Your task to perform on an android device: create a new album in the google photos Image 0: 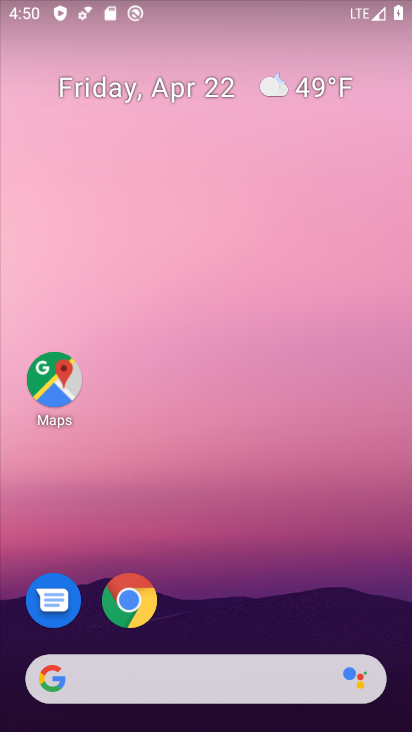
Step 0: drag from (225, 514) to (217, 13)
Your task to perform on an android device: create a new album in the google photos Image 1: 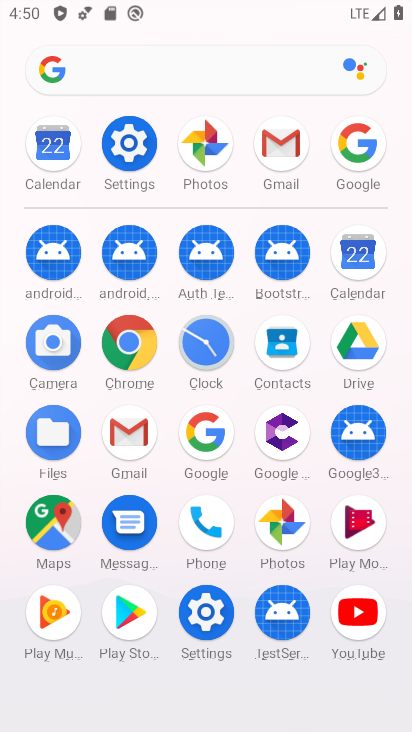
Step 1: click (204, 144)
Your task to perform on an android device: create a new album in the google photos Image 2: 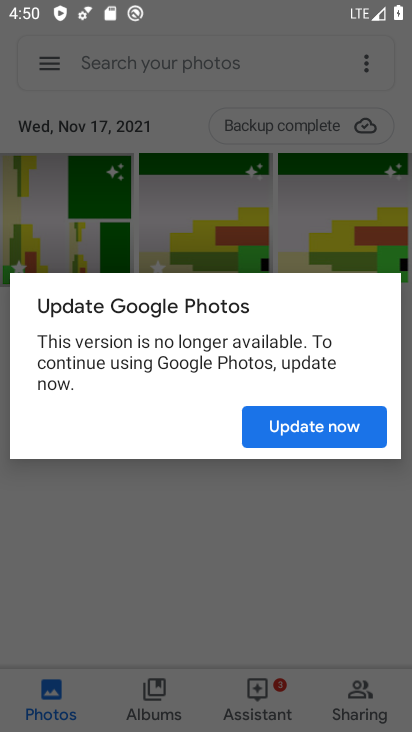
Step 2: click (301, 426)
Your task to perform on an android device: create a new album in the google photos Image 3: 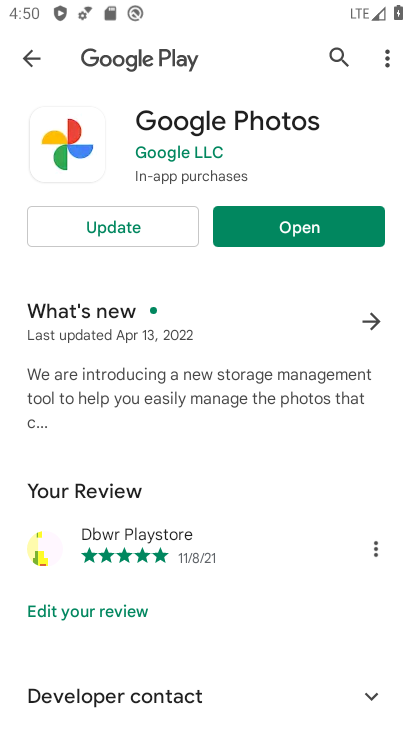
Step 3: click (155, 232)
Your task to perform on an android device: create a new album in the google photos Image 4: 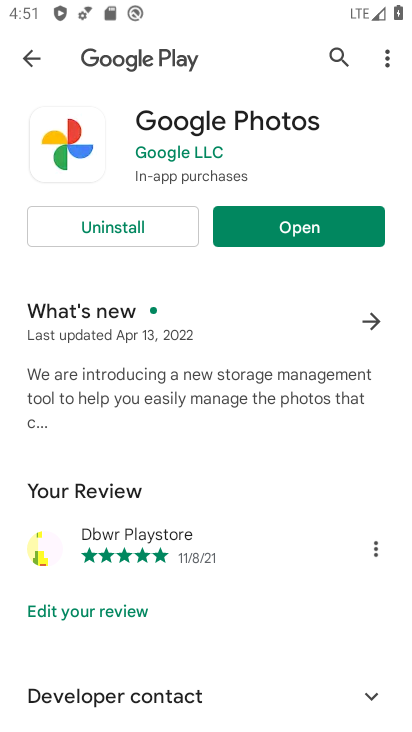
Step 4: click (261, 239)
Your task to perform on an android device: create a new album in the google photos Image 5: 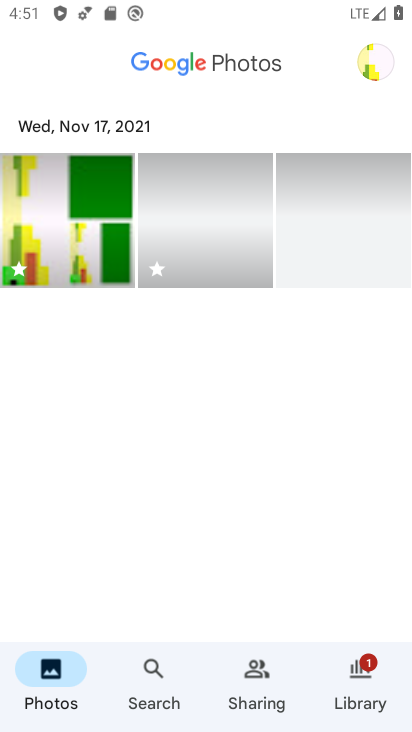
Step 5: click (367, 672)
Your task to perform on an android device: create a new album in the google photos Image 6: 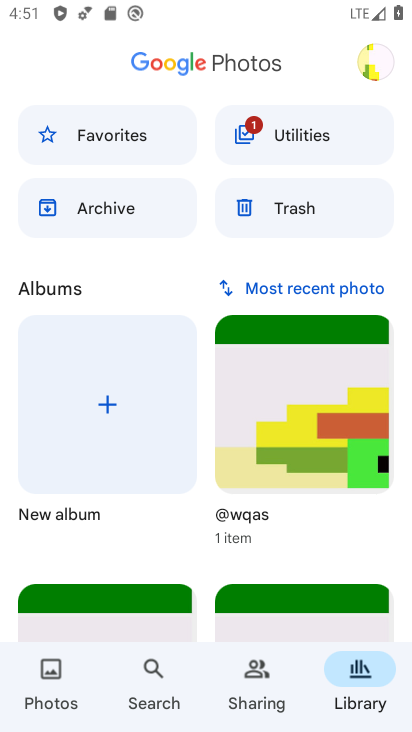
Step 6: click (105, 400)
Your task to perform on an android device: create a new album in the google photos Image 7: 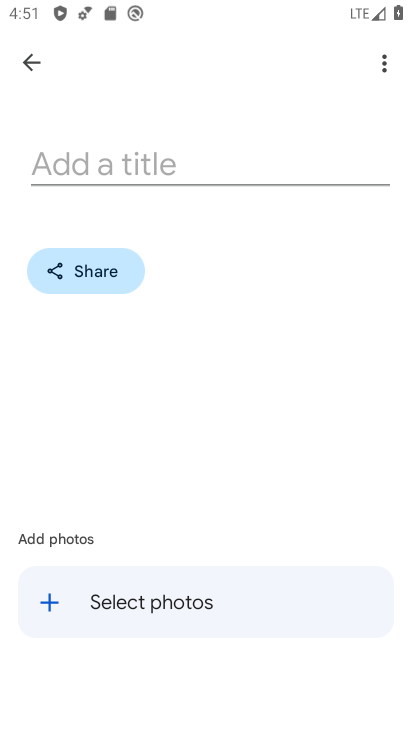
Step 7: click (247, 172)
Your task to perform on an android device: create a new album in the google photos Image 8: 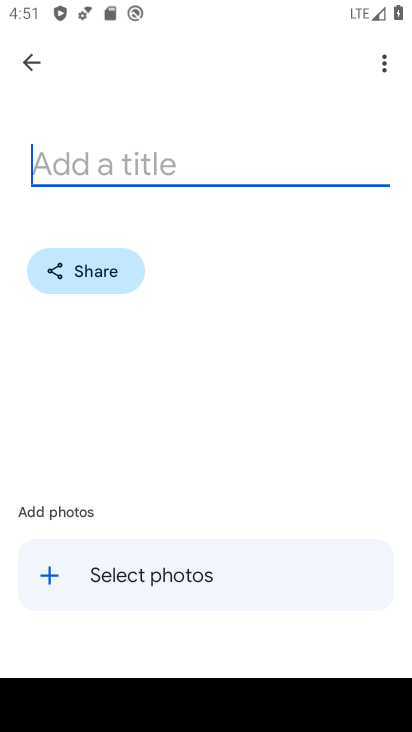
Step 8: type "gghddg"
Your task to perform on an android device: create a new album in the google photos Image 9: 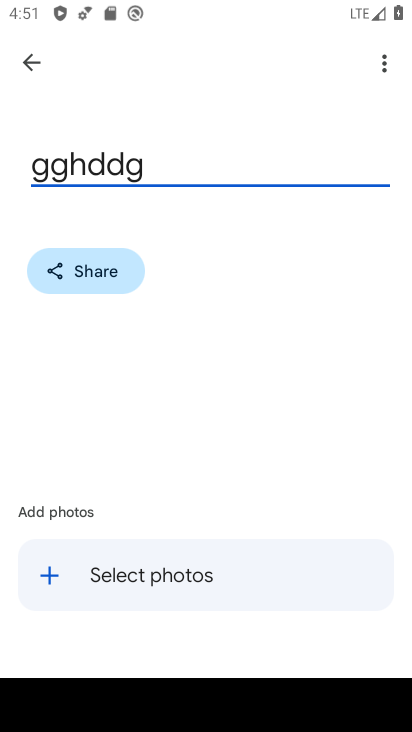
Step 9: click (155, 571)
Your task to perform on an android device: create a new album in the google photos Image 10: 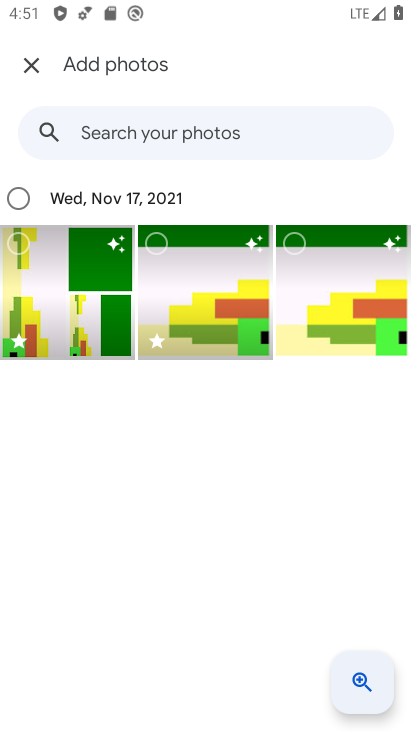
Step 10: click (79, 303)
Your task to perform on an android device: create a new album in the google photos Image 11: 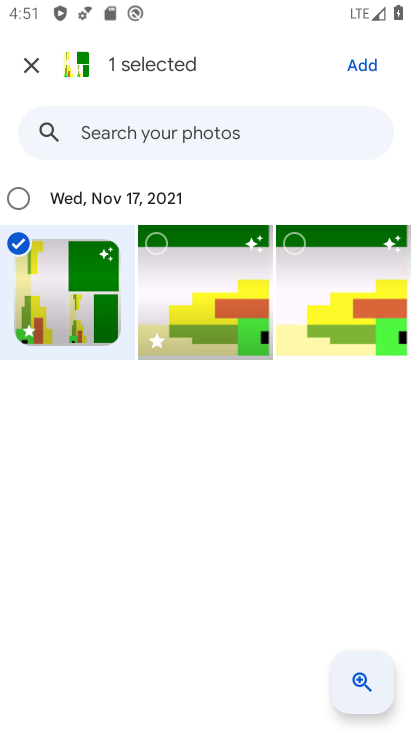
Step 11: click (365, 67)
Your task to perform on an android device: create a new album in the google photos Image 12: 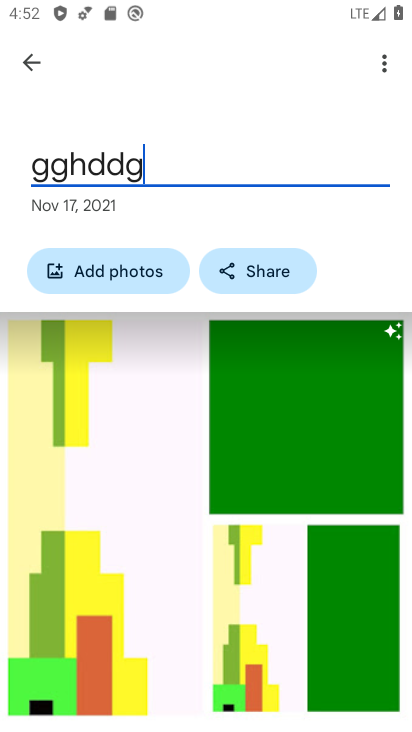
Step 12: task complete